Your task to perform on an android device: delete a single message in the gmail app Image 0: 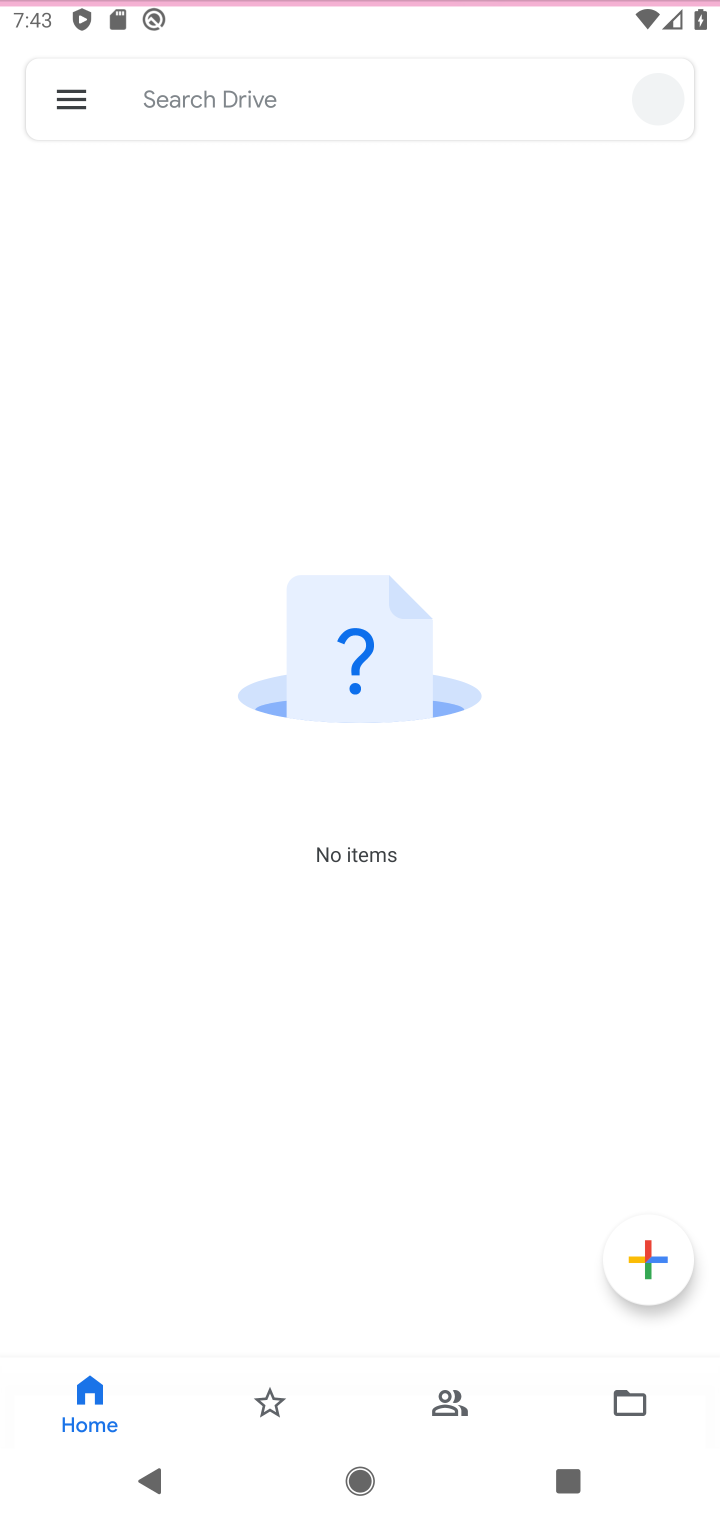
Step 0: press home button
Your task to perform on an android device: delete a single message in the gmail app Image 1: 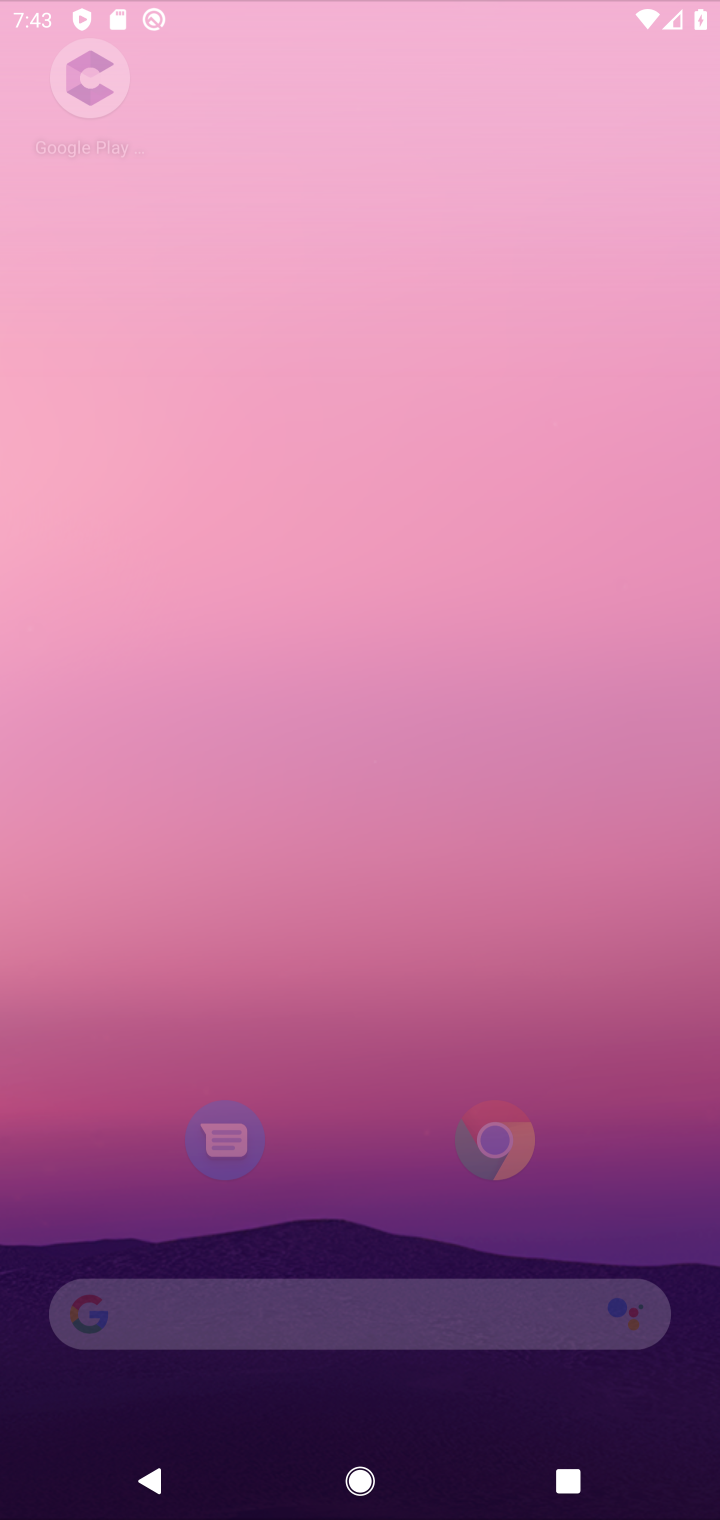
Step 1: press home button
Your task to perform on an android device: delete a single message in the gmail app Image 2: 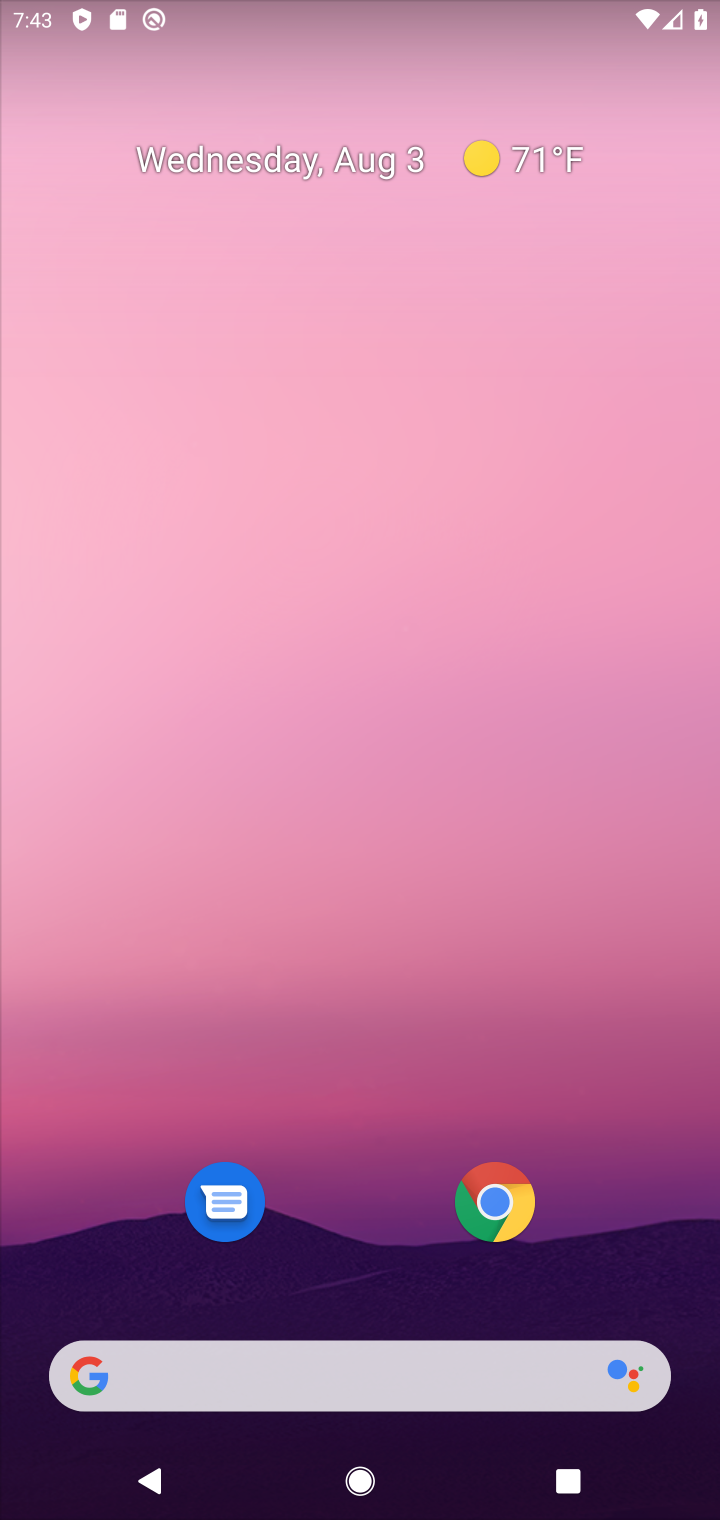
Step 2: drag from (248, 1391) to (380, 525)
Your task to perform on an android device: delete a single message in the gmail app Image 3: 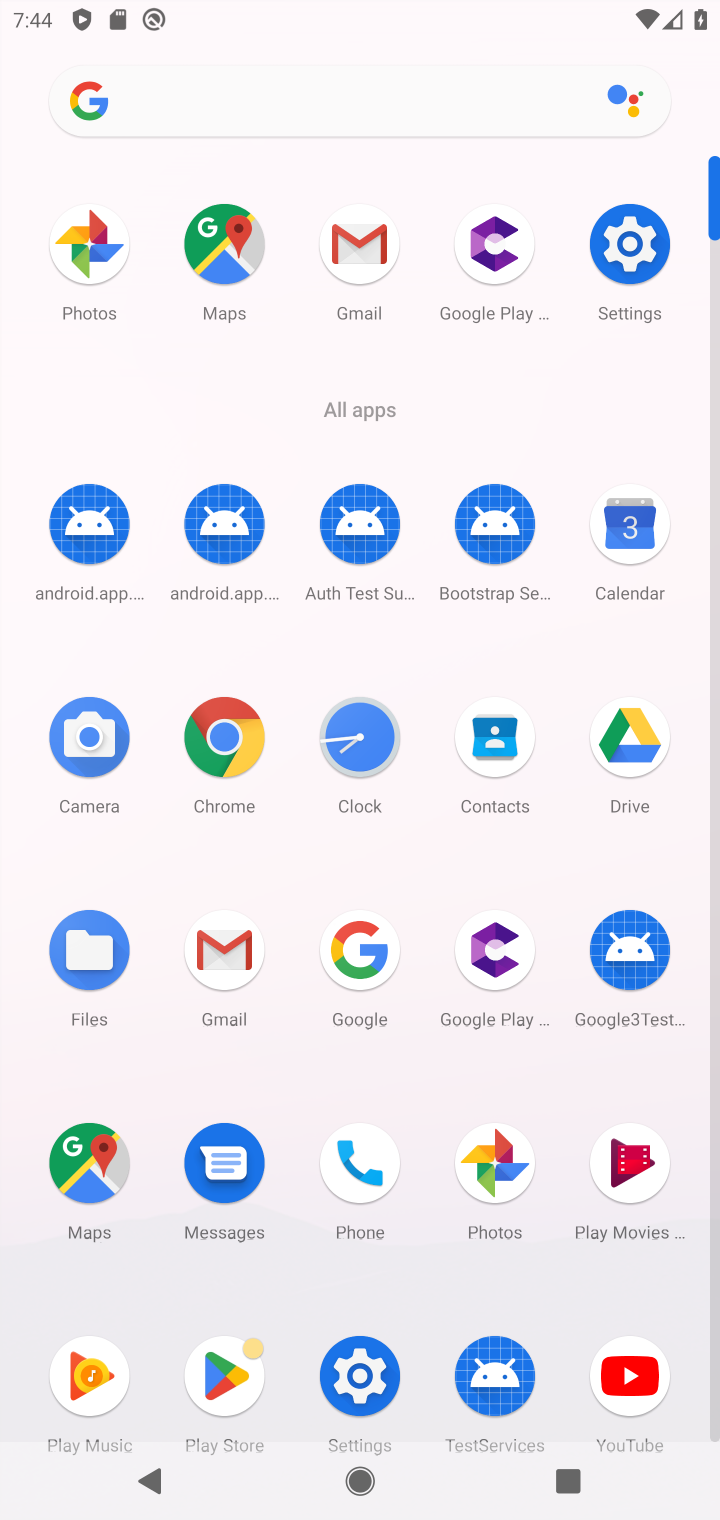
Step 3: click (355, 246)
Your task to perform on an android device: delete a single message in the gmail app Image 4: 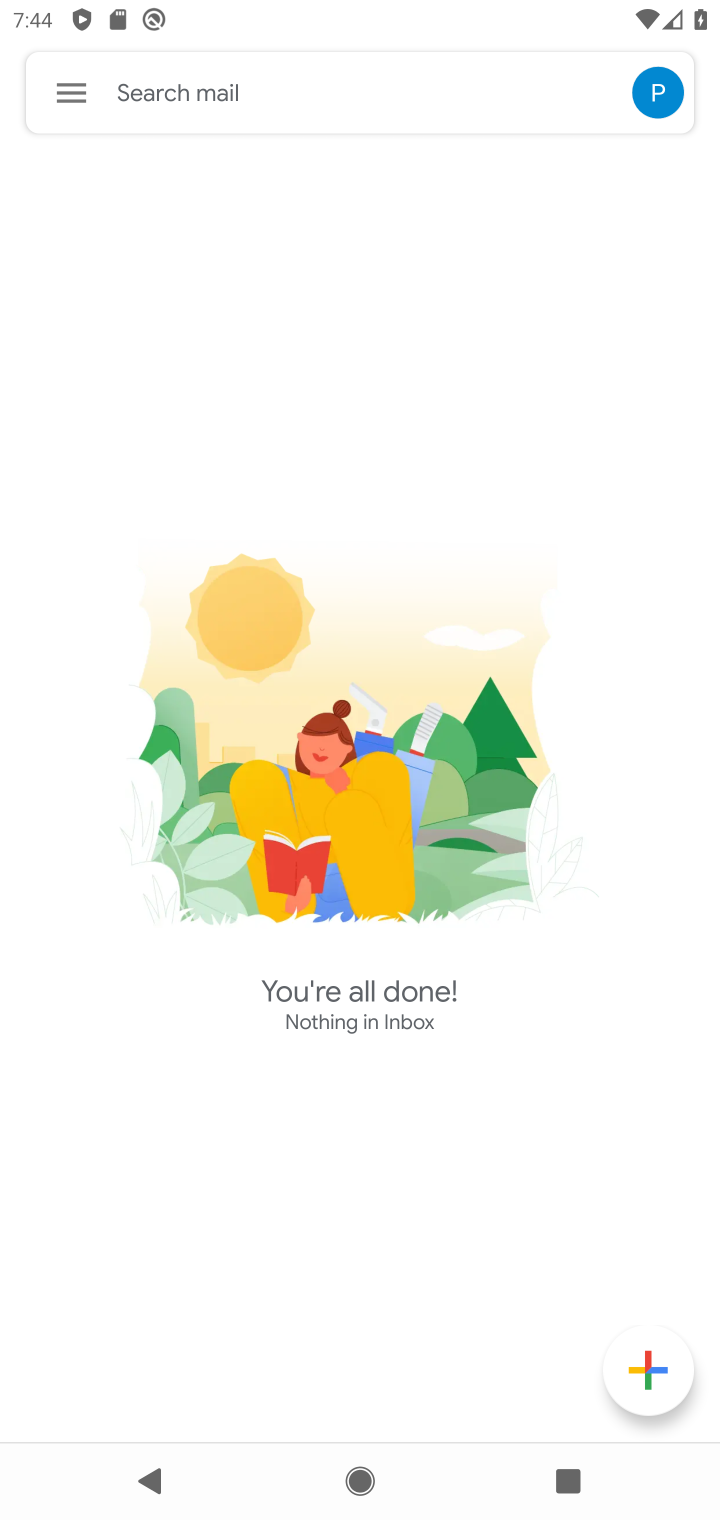
Step 4: click (72, 92)
Your task to perform on an android device: delete a single message in the gmail app Image 5: 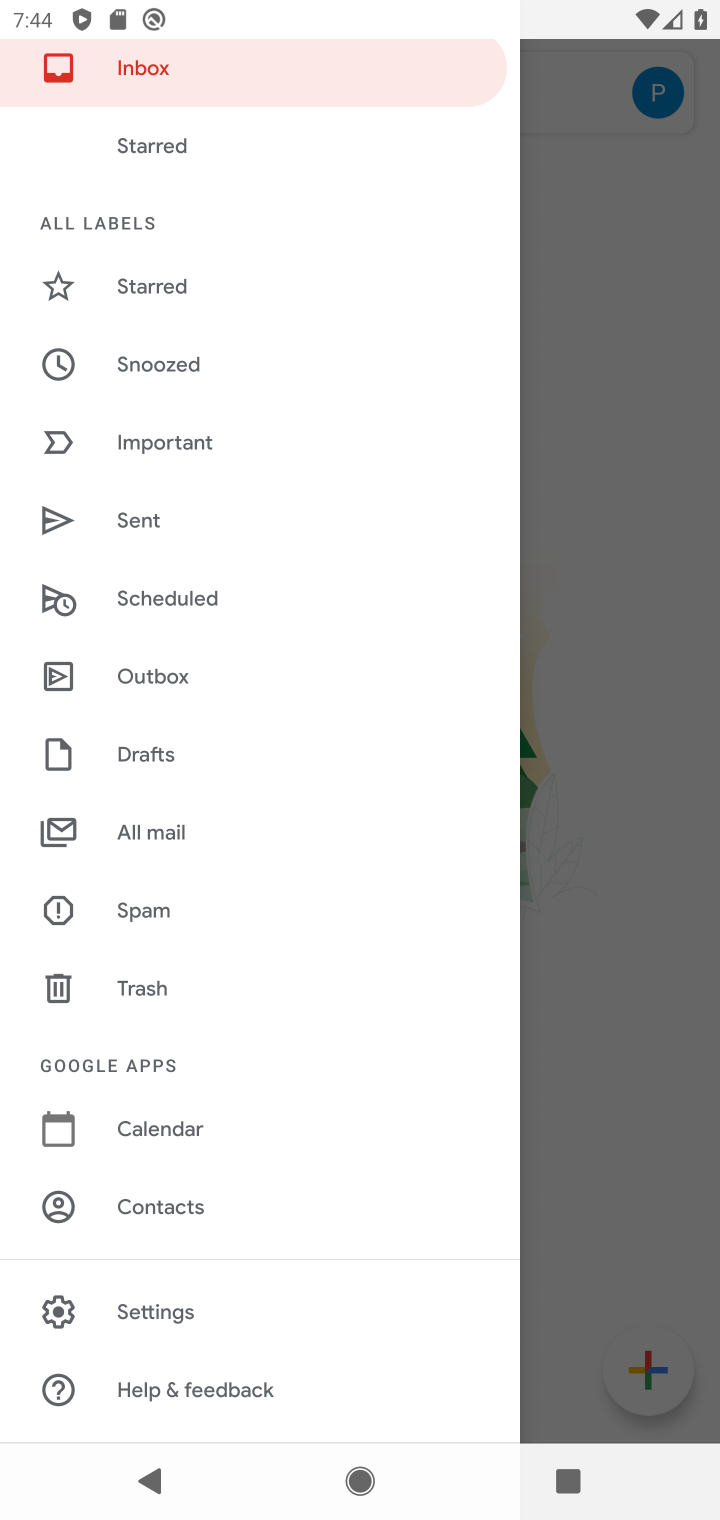
Step 5: click (154, 827)
Your task to perform on an android device: delete a single message in the gmail app Image 6: 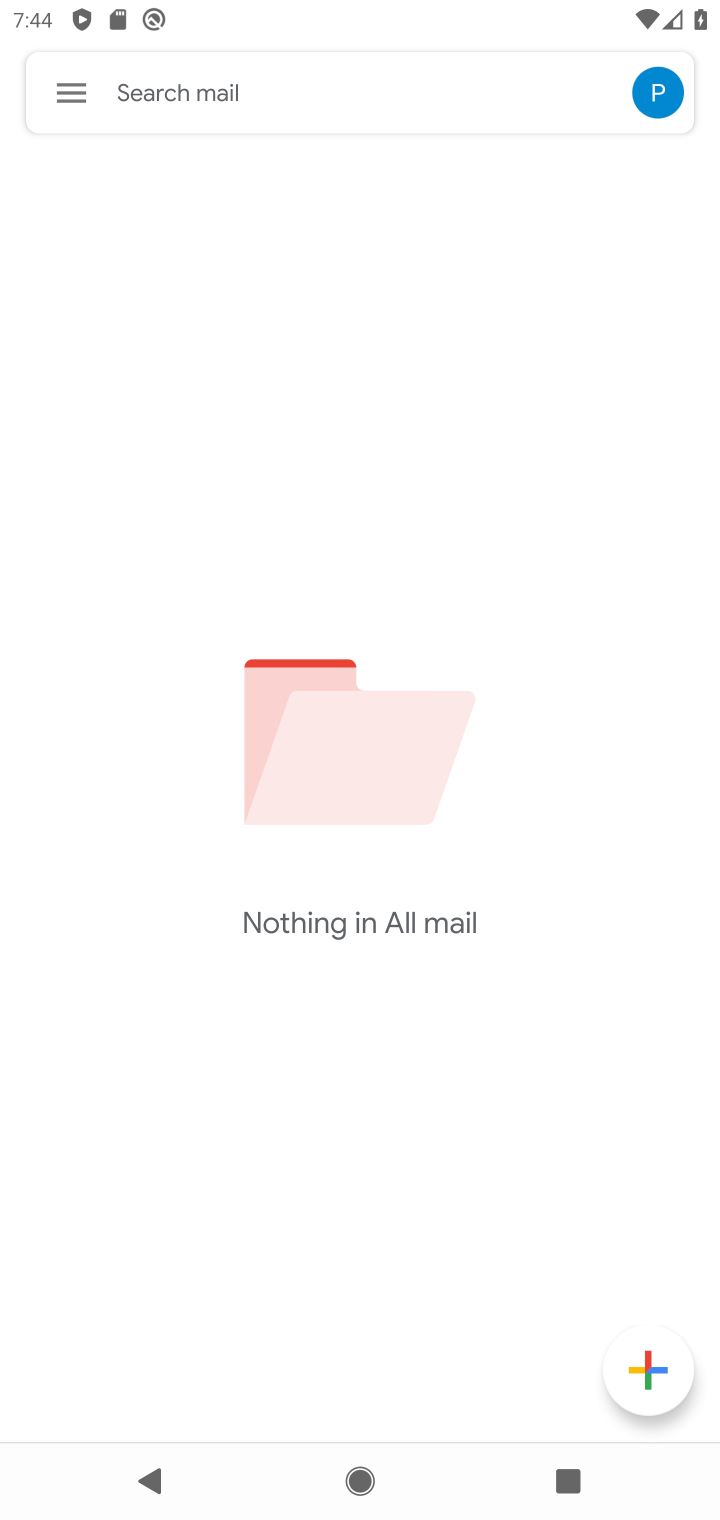
Step 6: click (70, 100)
Your task to perform on an android device: delete a single message in the gmail app Image 7: 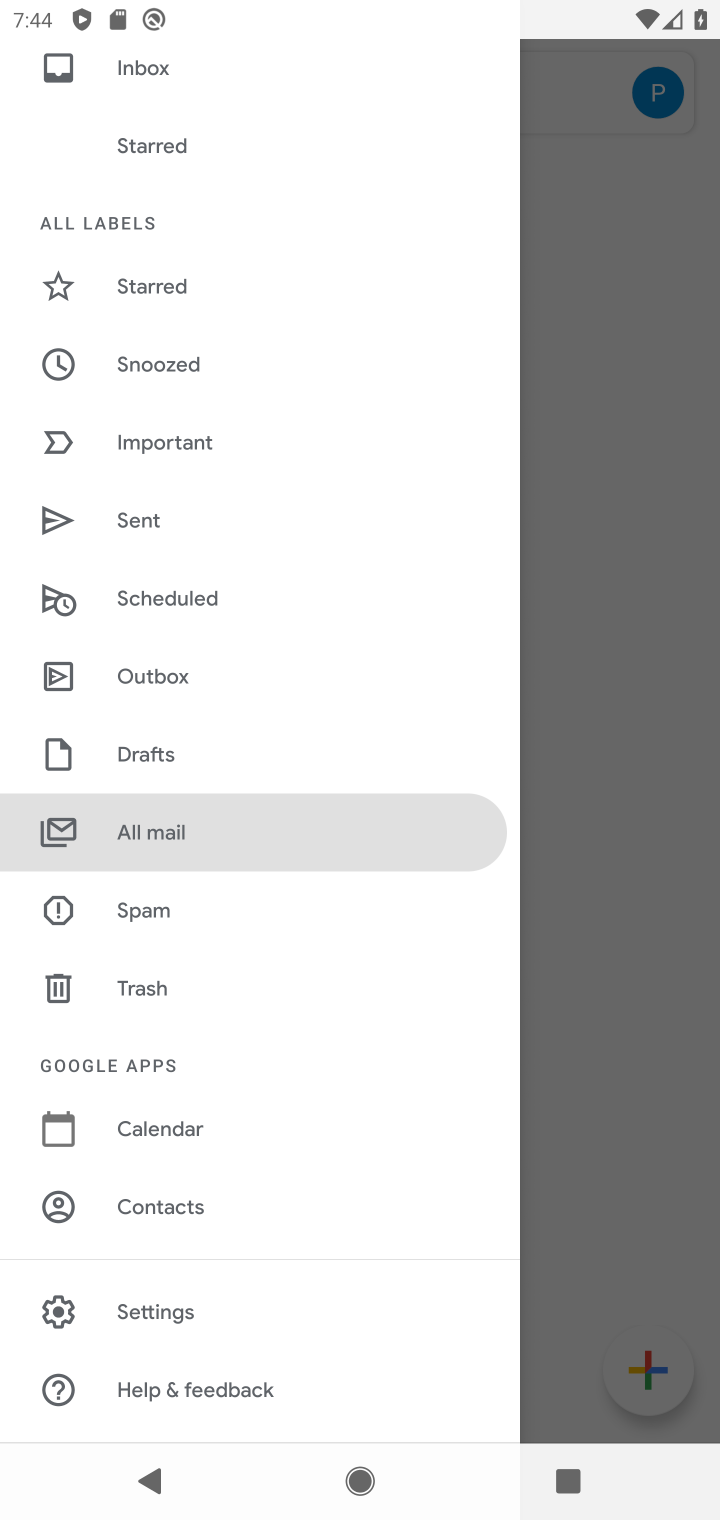
Step 7: click (143, 90)
Your task to perform on an android device: delete a single message in the gmail app Image 8: 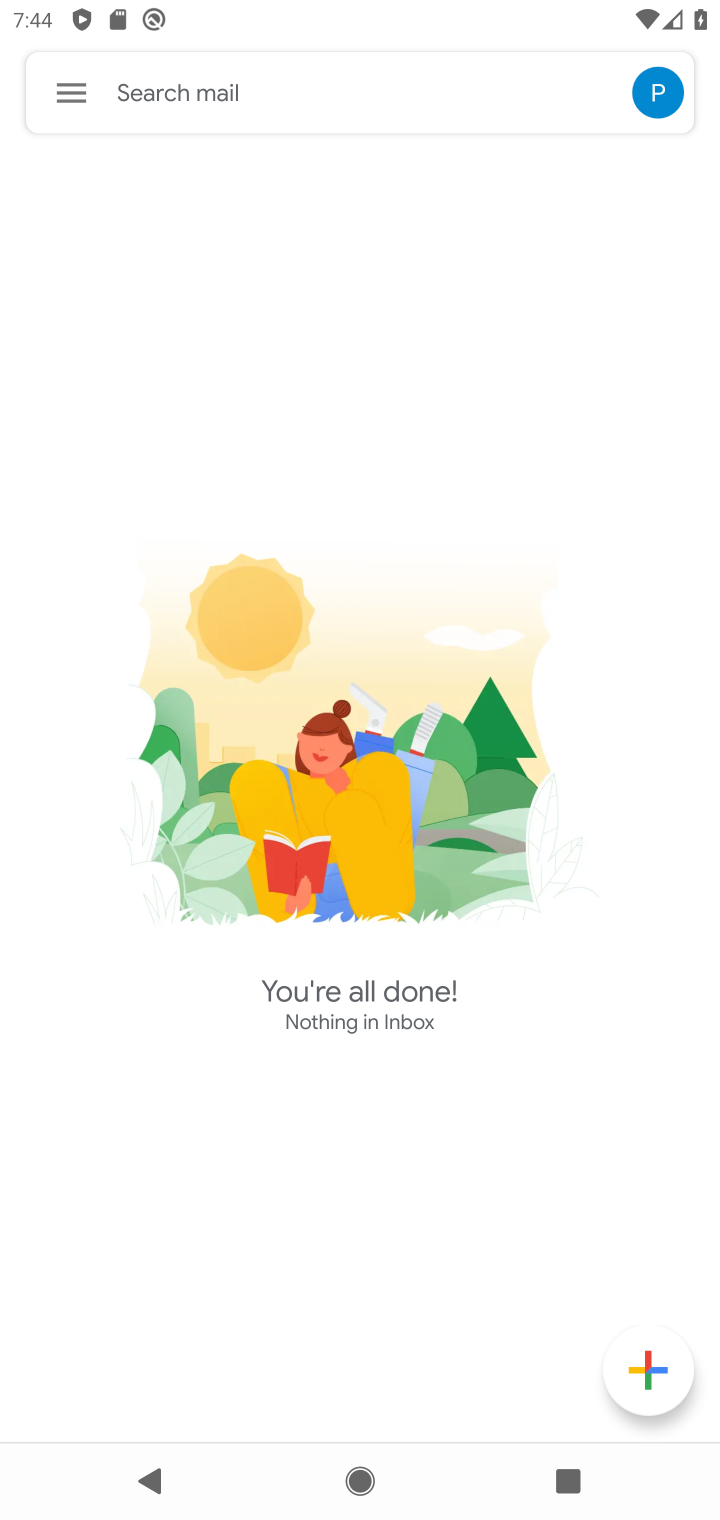
Step 8: click (67, 108)
Your task to perform on an android device: delete a single message in the gmail app Image 9: 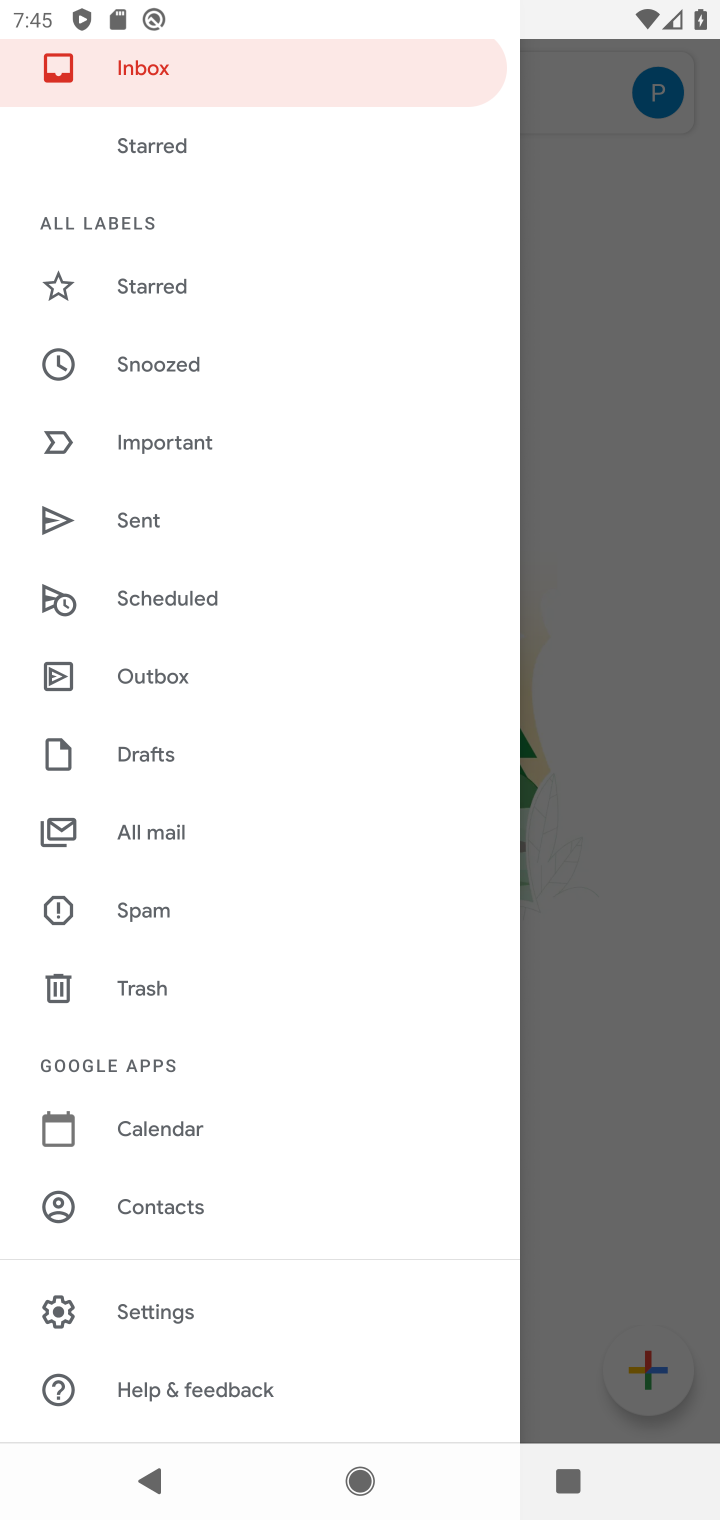
Step 9: click (126, 294)
Your task to perform on an android device: delete a single message in the gmail app Image 10: 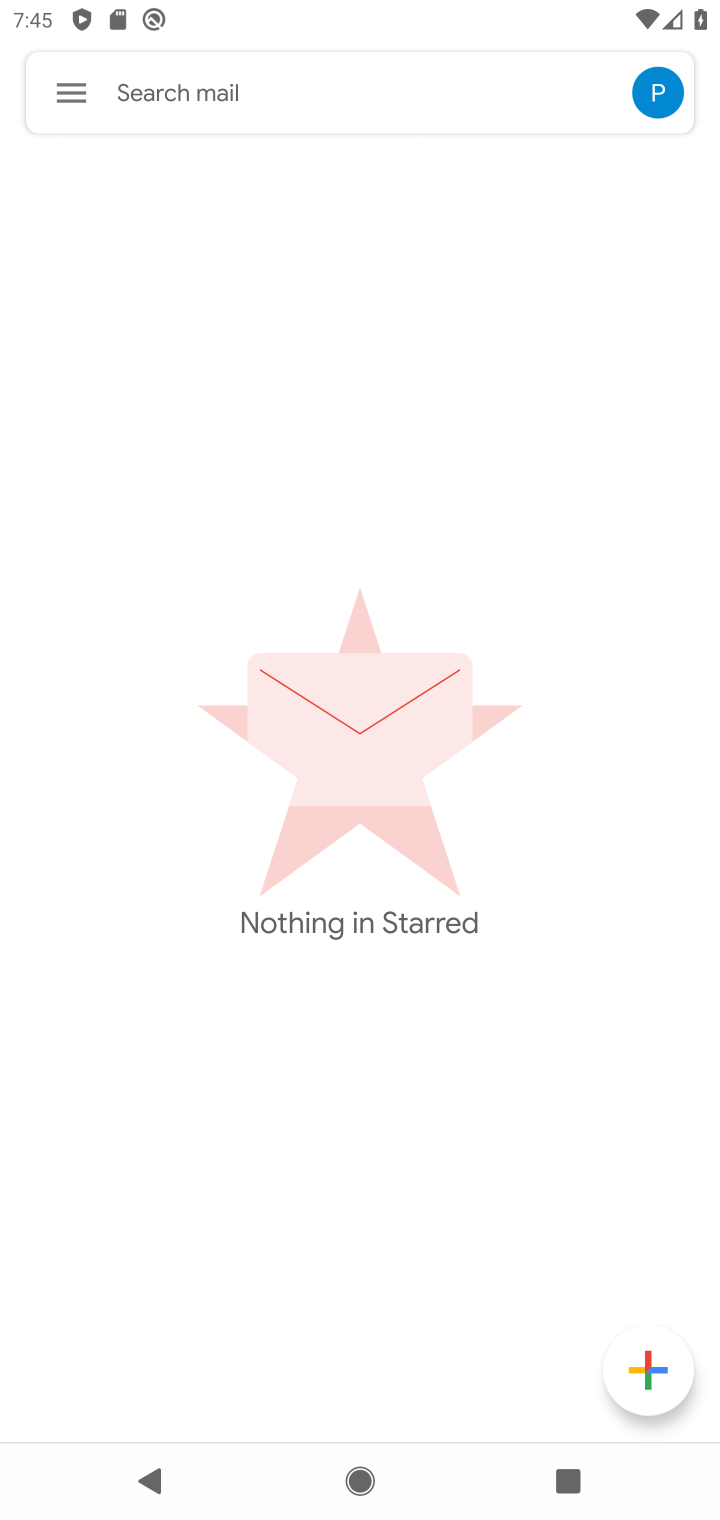
Step 10: click (78, 100)
Your task to perform on an android device: delete a single message in the gmail app Image 11: 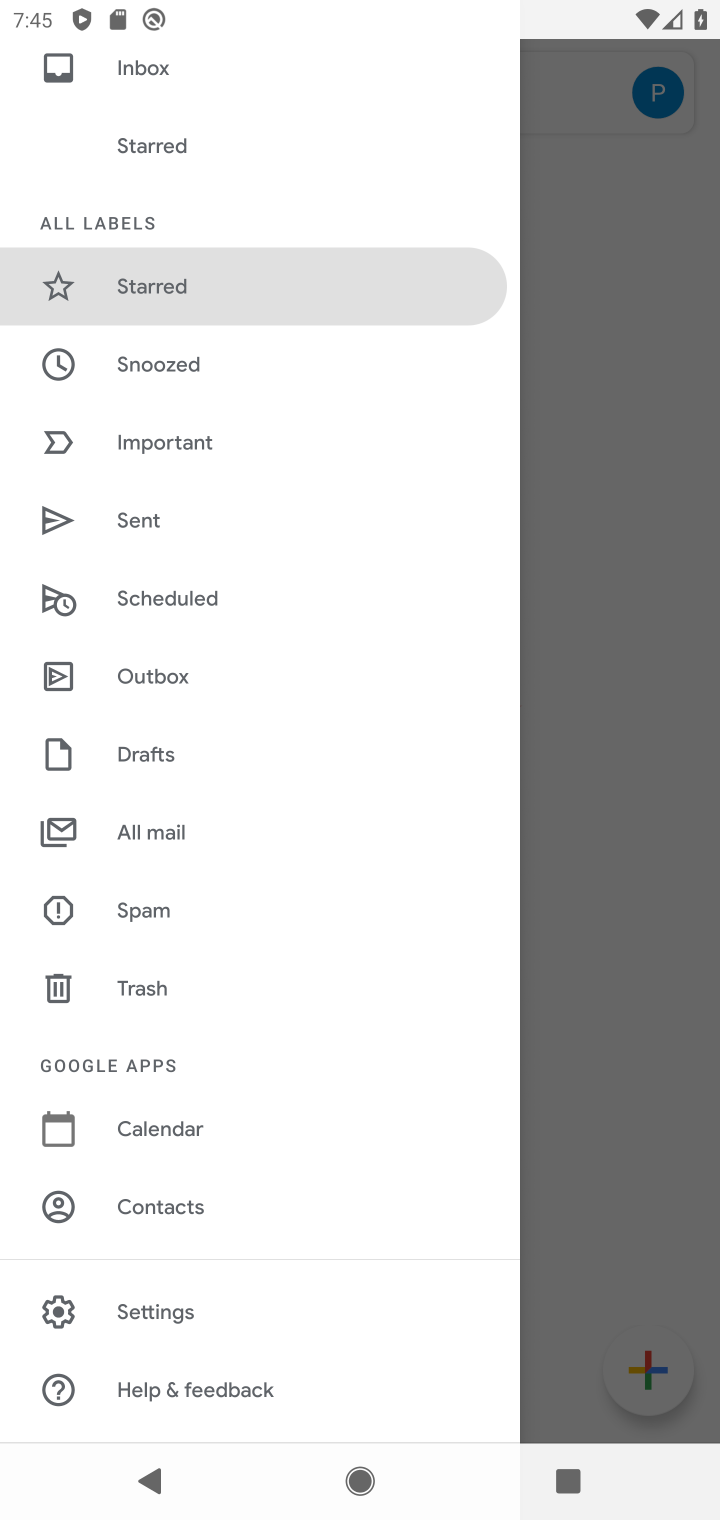
Step 11: click (142, 361)
Your task to perform on an android device: delete a single message in the gmail app Image 12: 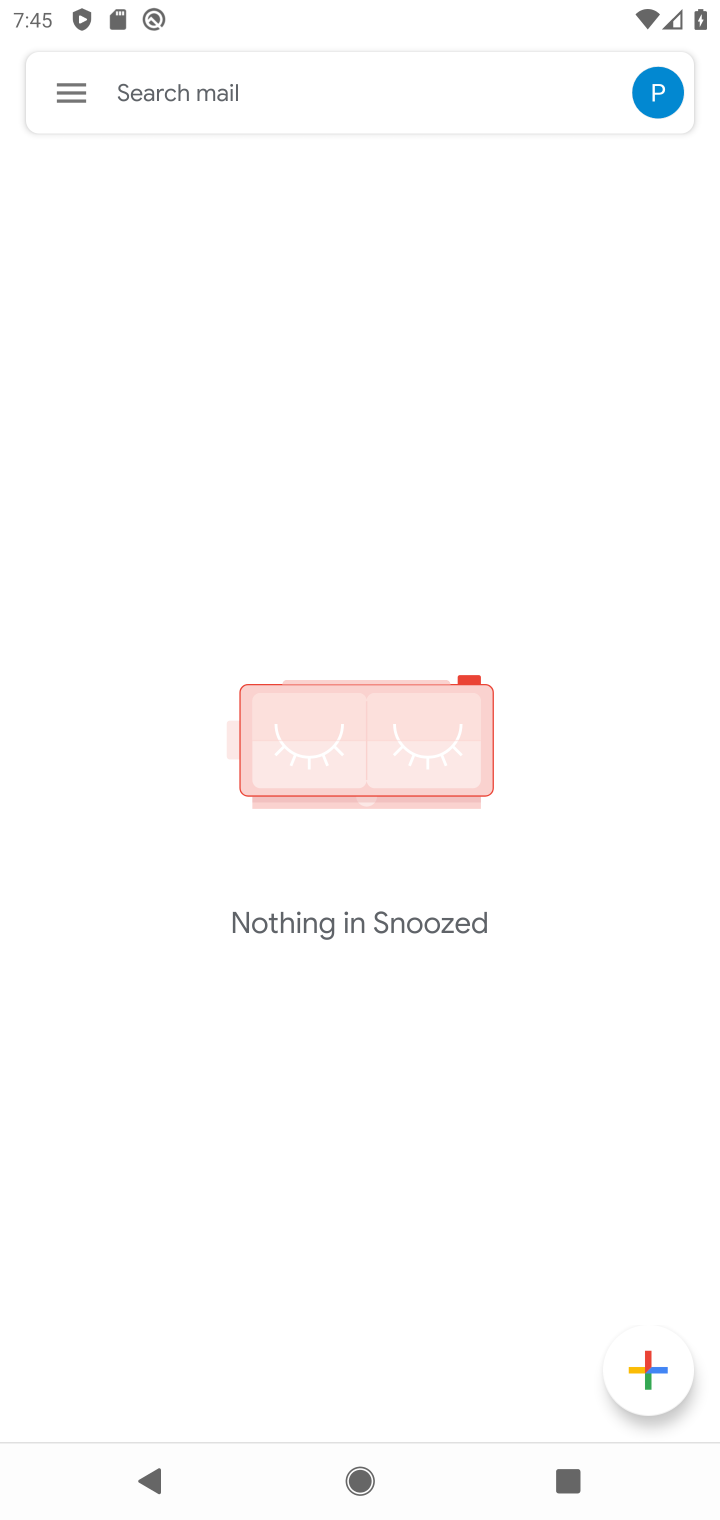
Step 12: click (69, 110)
Your task to perform on an android device: delete a single message in the gmail app Image 13: 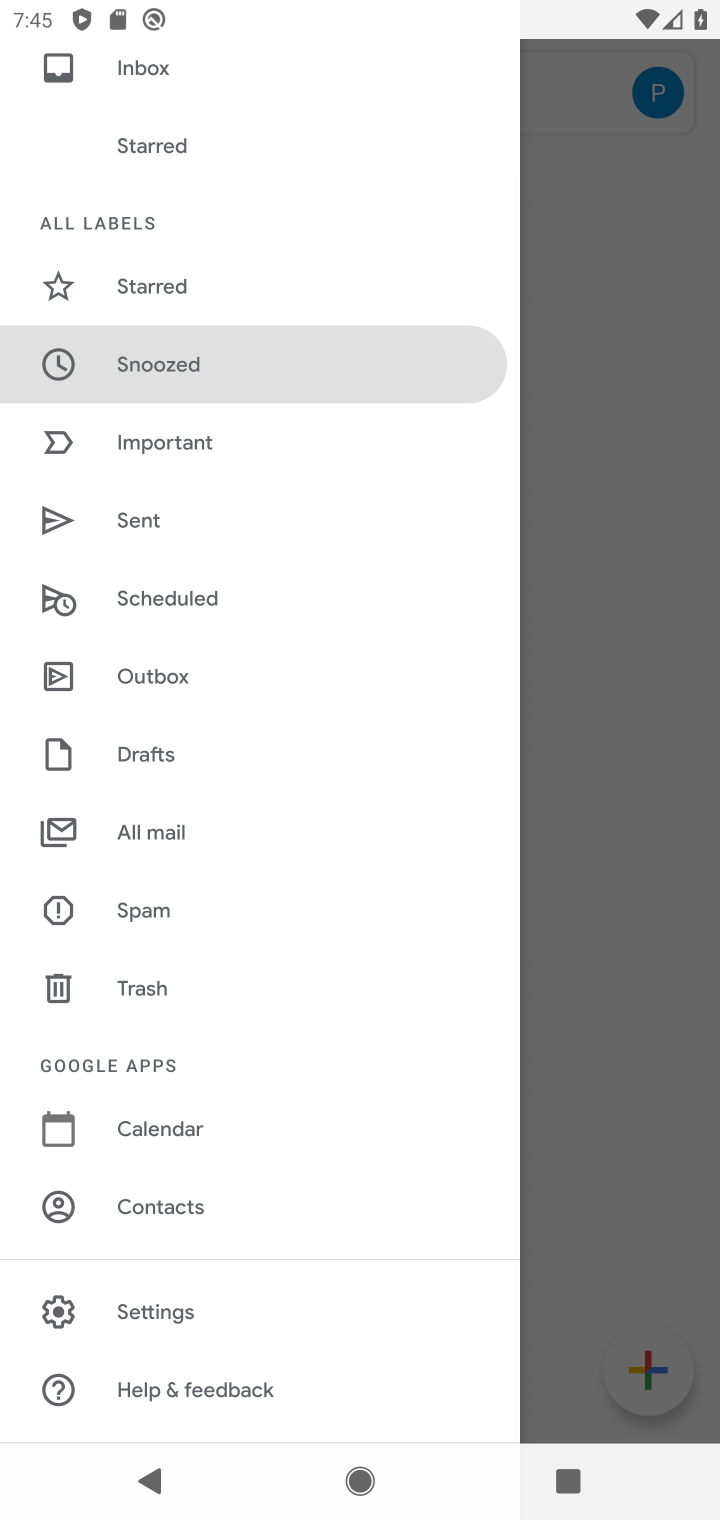
Step 13: click (178, 448)
Your task to perform on an android device: delete a single message in the gmail app Image 14: 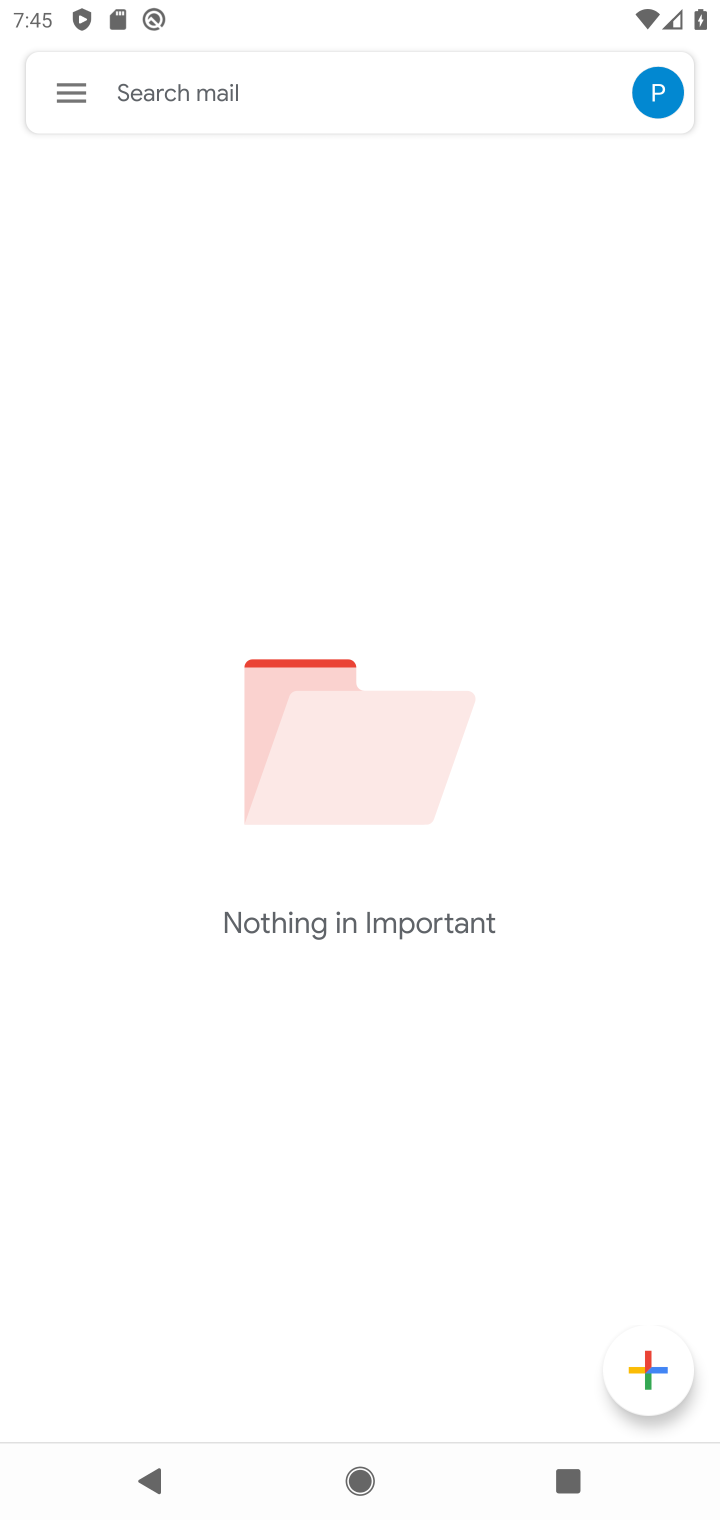
Step 14: click (63, 111)
Your task to perform on an android device: delete a single message in the gmail app Image 15: 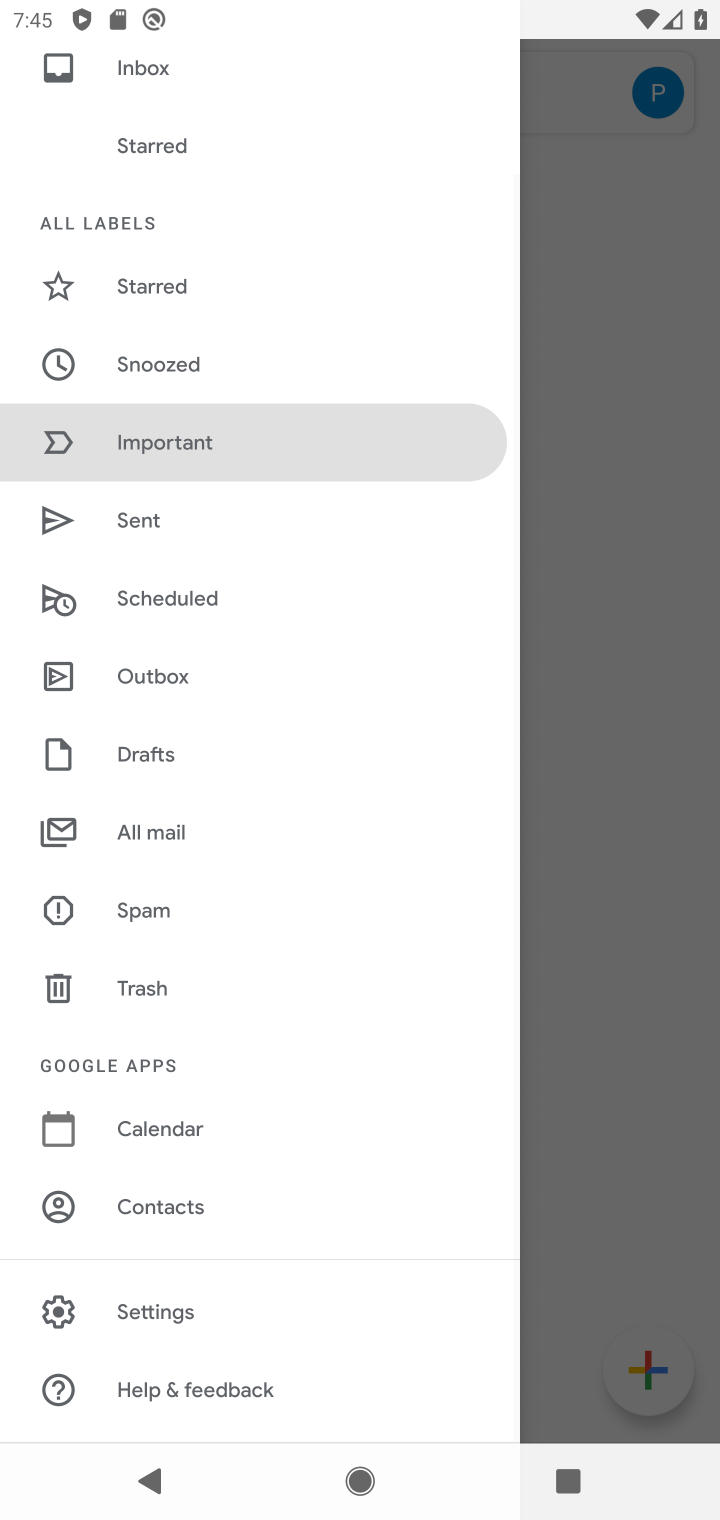
Step 15: click (166, 515)
Your task to perform on an android device: delete a single message in the gmail app Image 16: 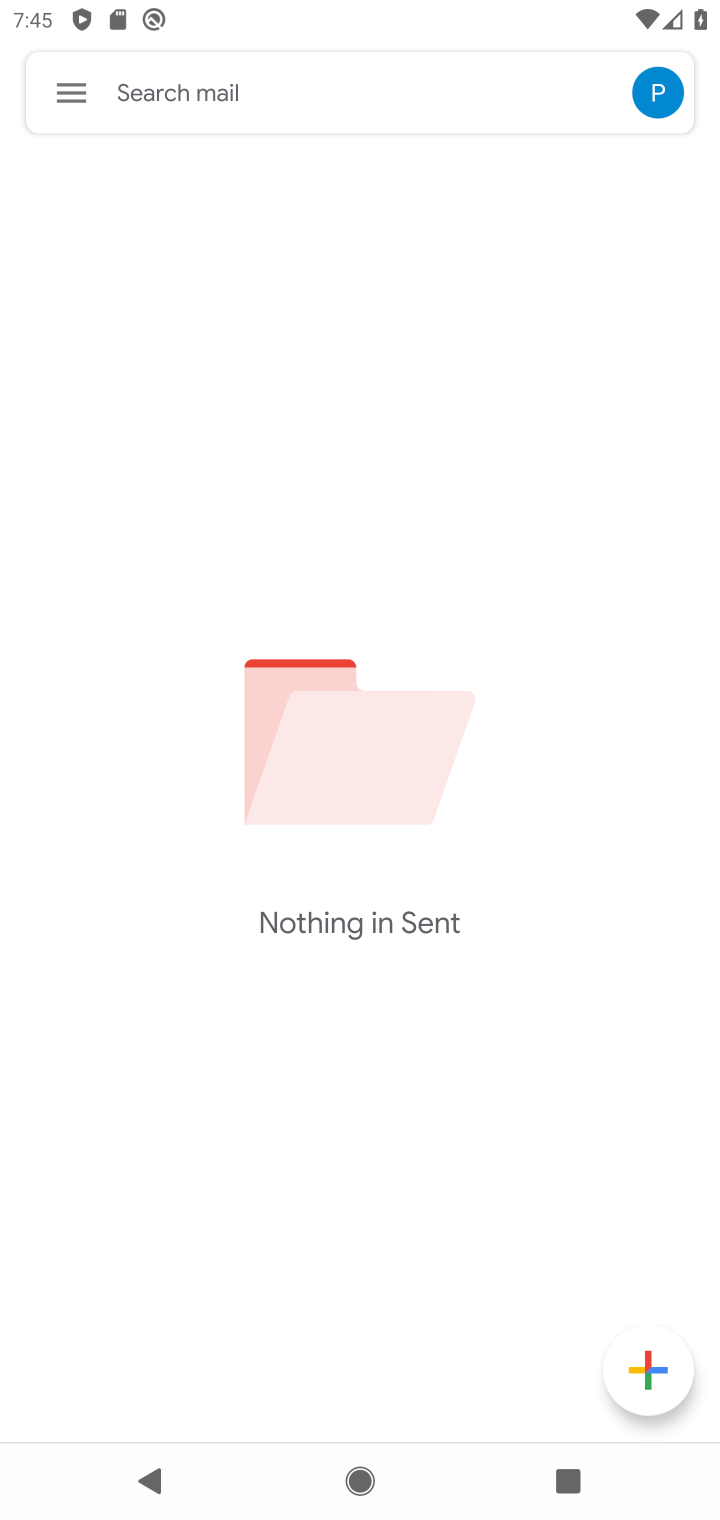
Step 16: click (73, 119)
Your task to perform on an android device: delete a single message in the gmail app Image 17: 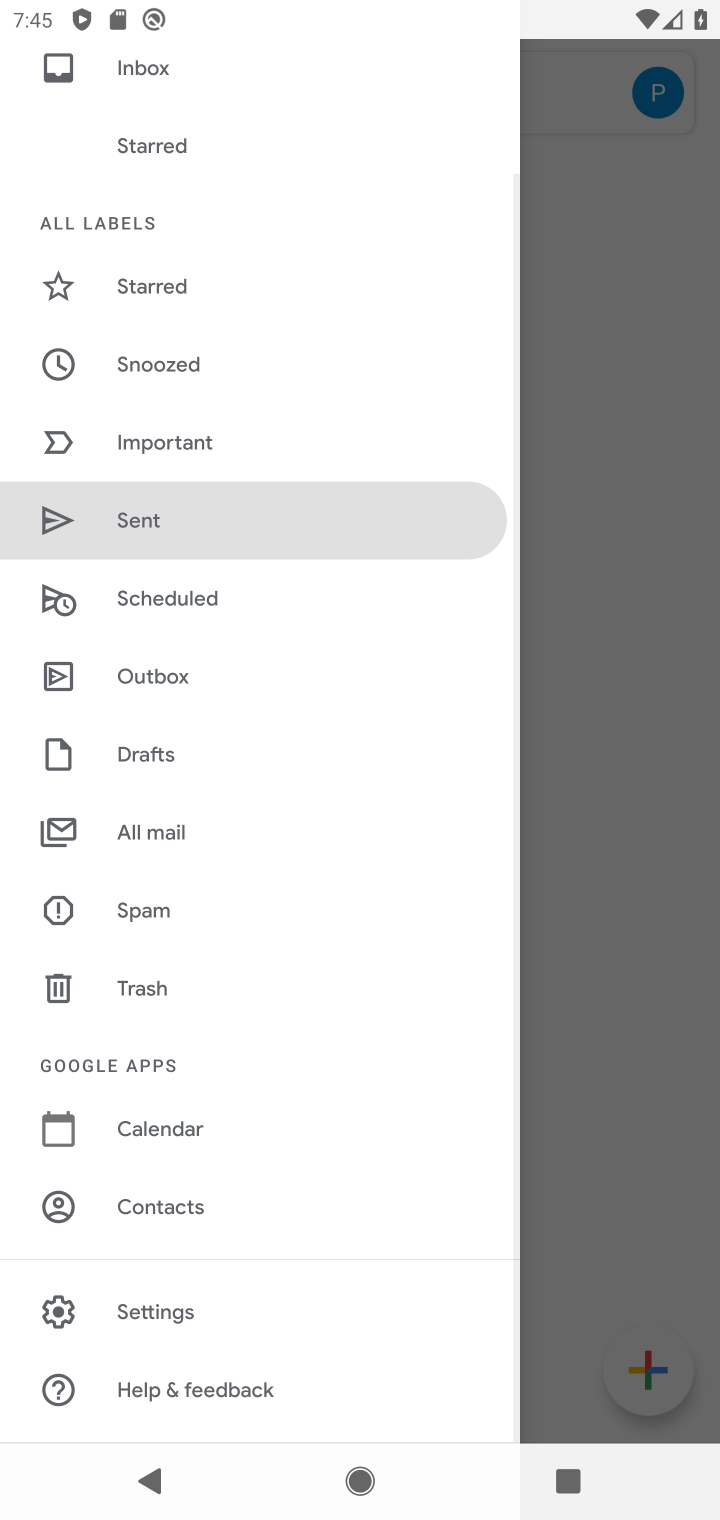
Step 17: click (214, 601)
Your task to perform on an android device: delete a single message in the gmail app Image 18: 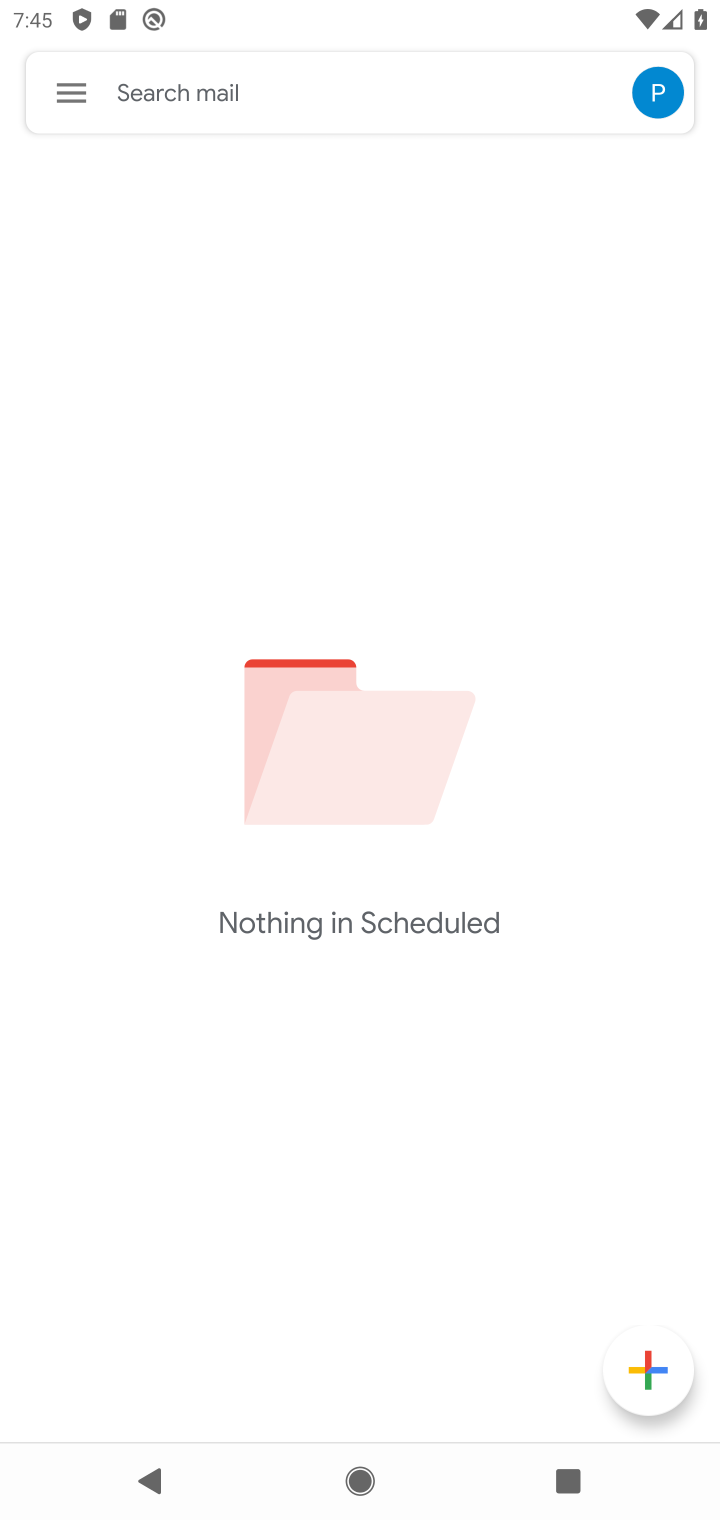
Step 18: task complete